Your task to perform on an android device: turn off picture-in-picture Image 0: 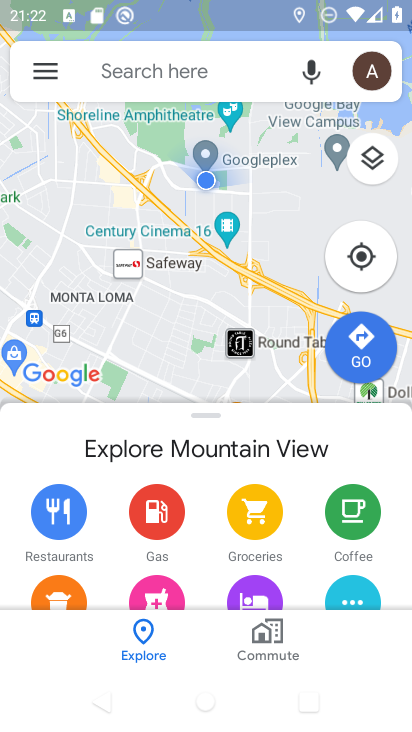
Step 0: press home button
Your task to perform on an android device: turn off picture-in-picture Image 1: 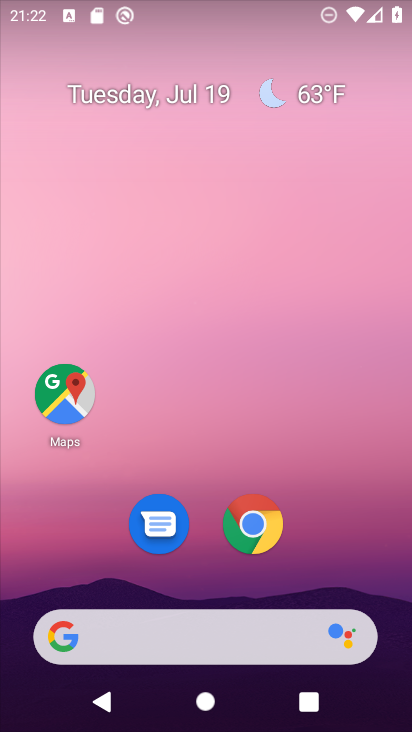
Step 1: click (256, 514)
Your task to perform on an android device: turn off picture-in-picture Image 2: 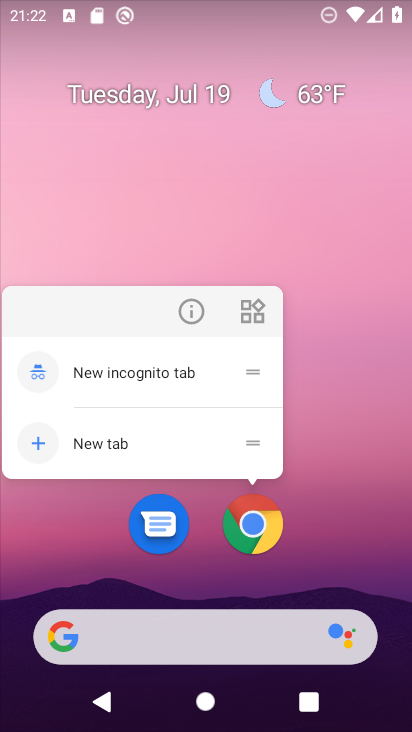
Step 2: click (188, 295)
Your task to perform on an android device: turn off picture-in-picture Image 3: 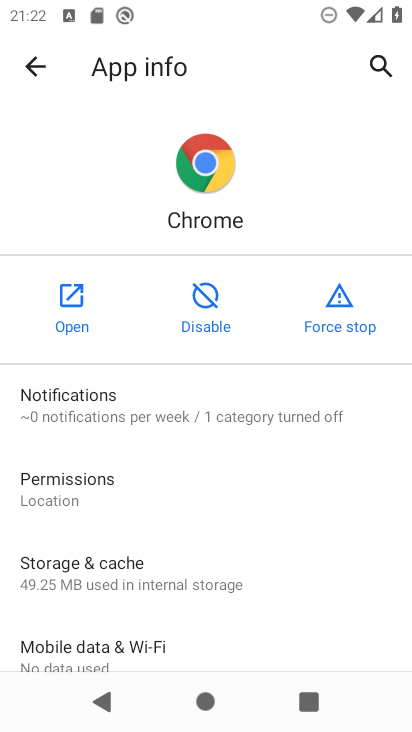
Step 3: drag from (203, 625) to (250, 209)
Your task to perform on an android device: turn off picture-in-picture Image 4: 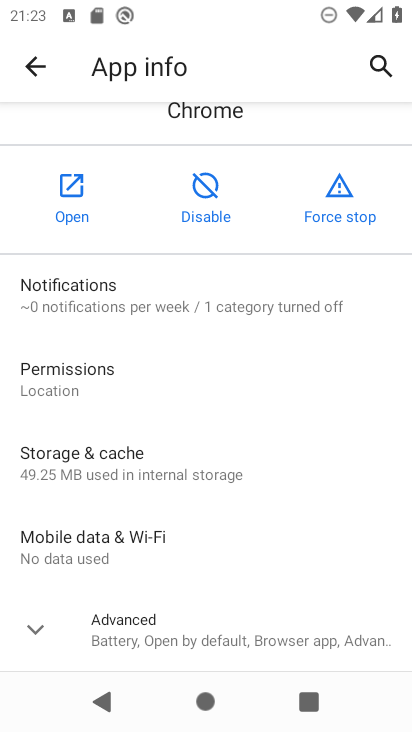
Step 4: click (39, 629)
Your task to perform on an android device: turn off picture-in-picture Image 5: 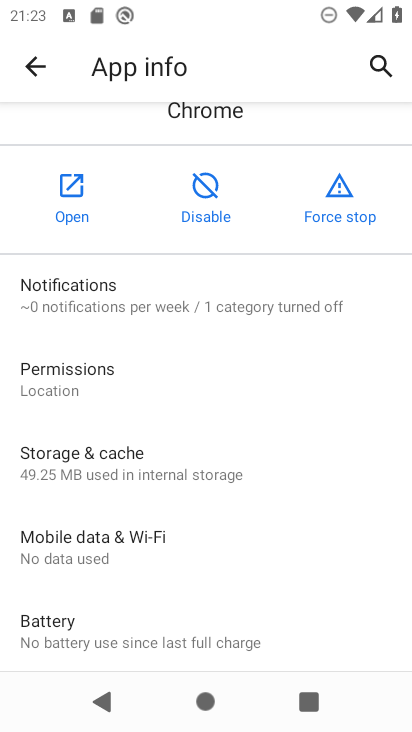
Step 5: drag from (194, 580) to (228, 258)
Your task to perform on an android device: turn off picture-in-picture Image 6: 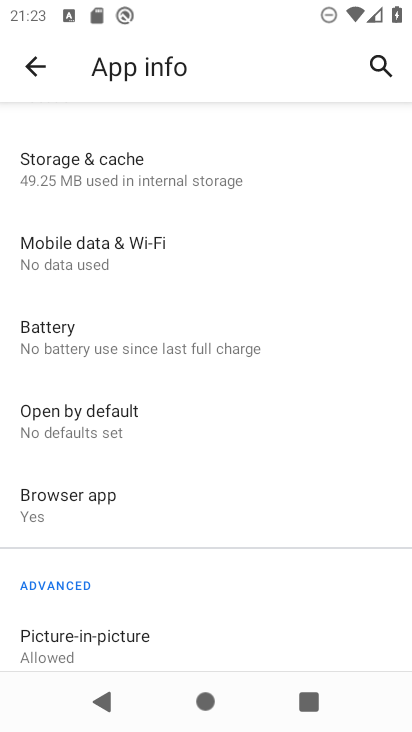
Step 6: click (130, 634)
Your task to perform on an android device: turn off picture-in-picture Image 7: 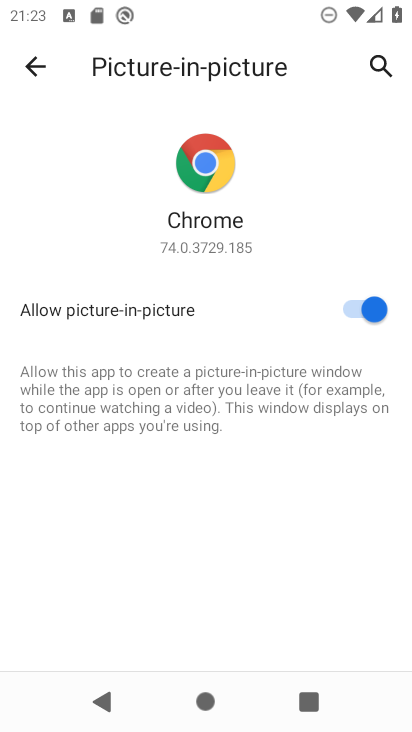
Step 7: click (368, 307)
Your task to perform on an android device: turn off picture-in-picture Image 8: 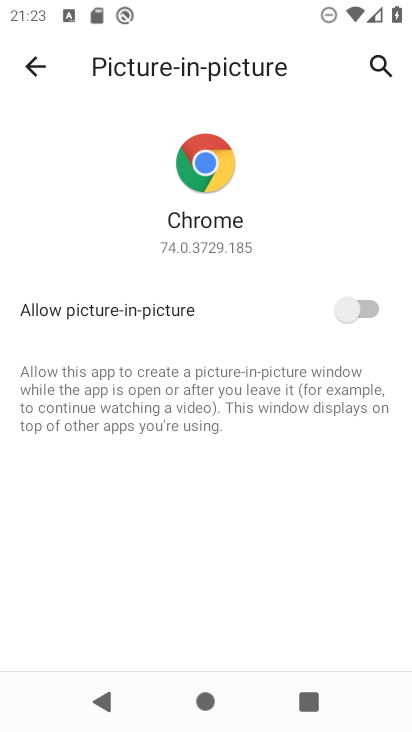
Step 8: task complete